Your task to perform on an android device: Add "logitech g pro" to the cart on newegg.com Image 0: 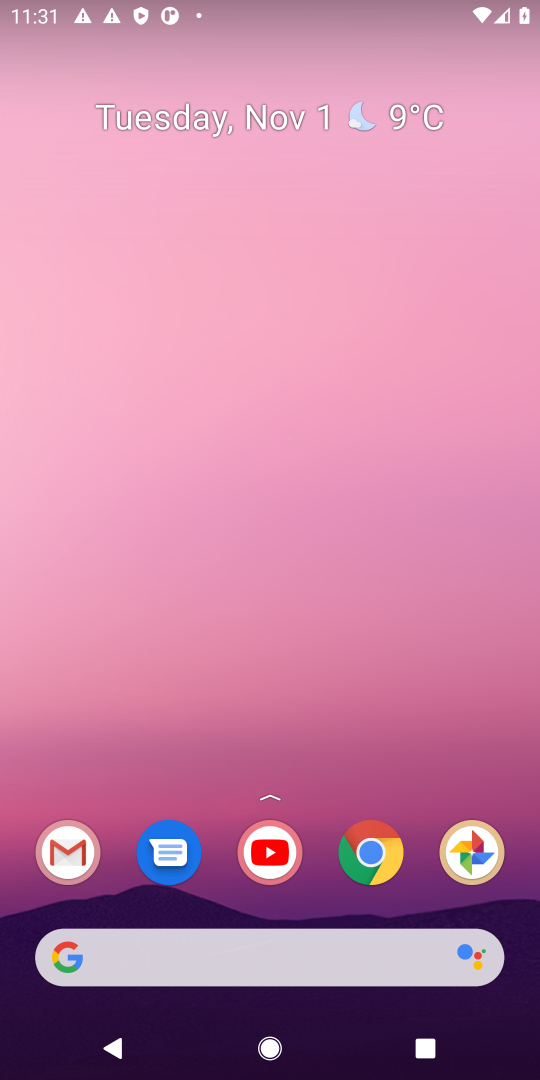
Step 0: drag from (255, 961) to (280, 307)
Your task to perform on an android device: Add "logitech g pro" to the cart on newegg.com Image 1: 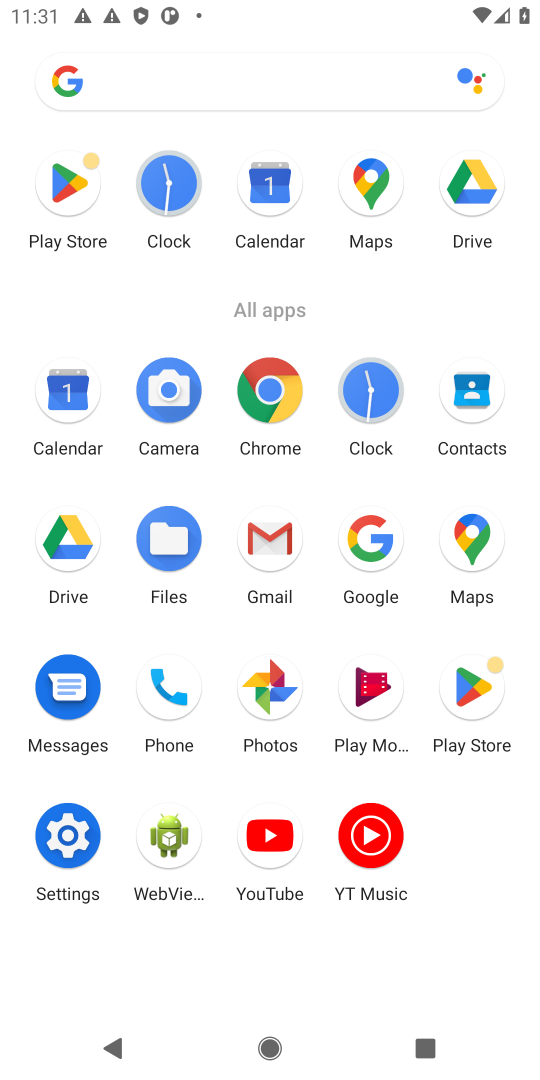
Step 1: click (375, 541)
Your task to perform on an android device: Add "logitech g pro" to the cart on newegg.com Image 2: 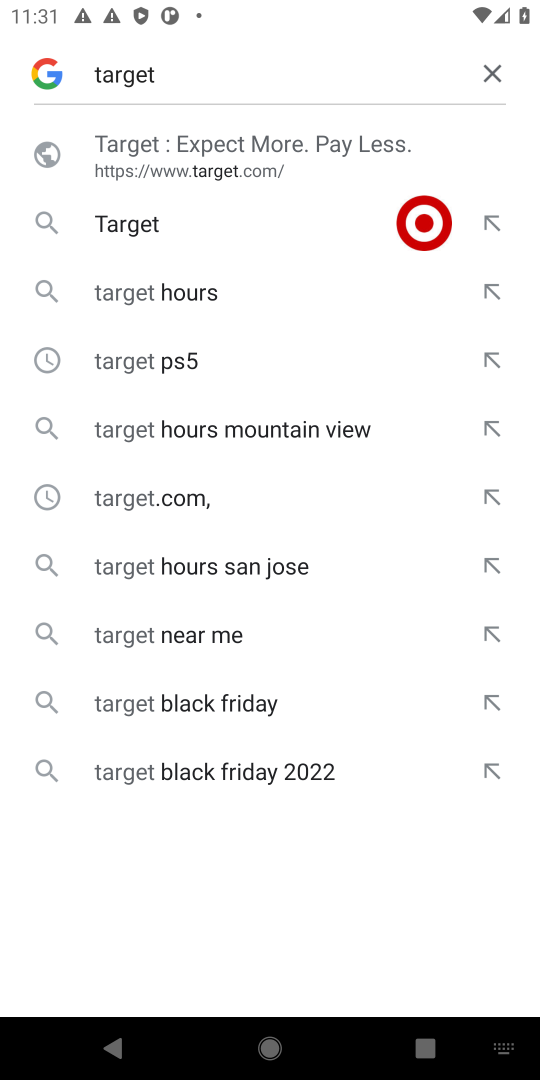
Step 2: click (479, 69)
Your task to perform on an android device: Add "logitech g pro" to the cart on newegg.com Image 3: 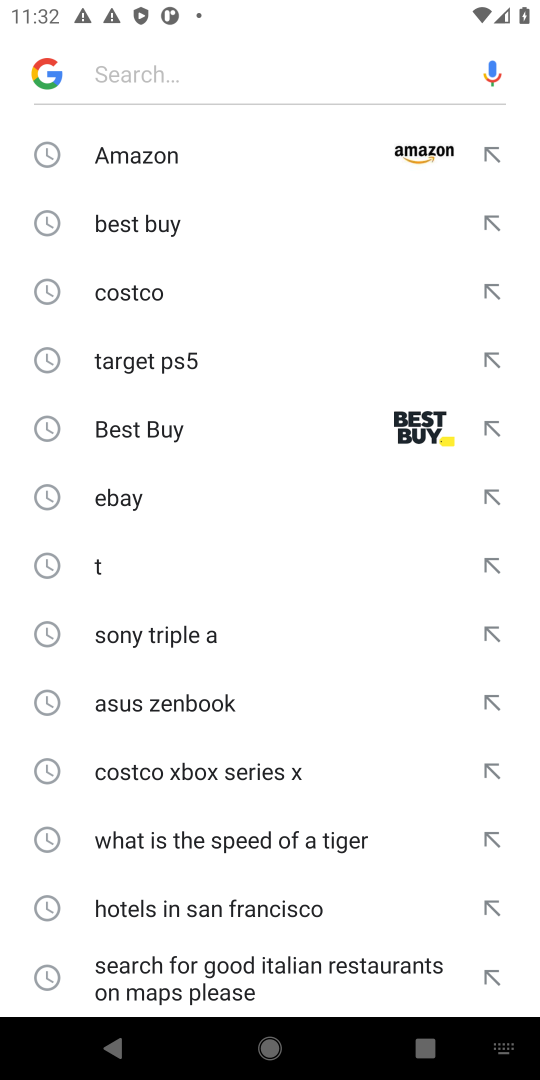
Step 3: type "newegg.com"
Your task to perform on an android device: Add "logitech g pro" to the cart on newegg.com Image 4: 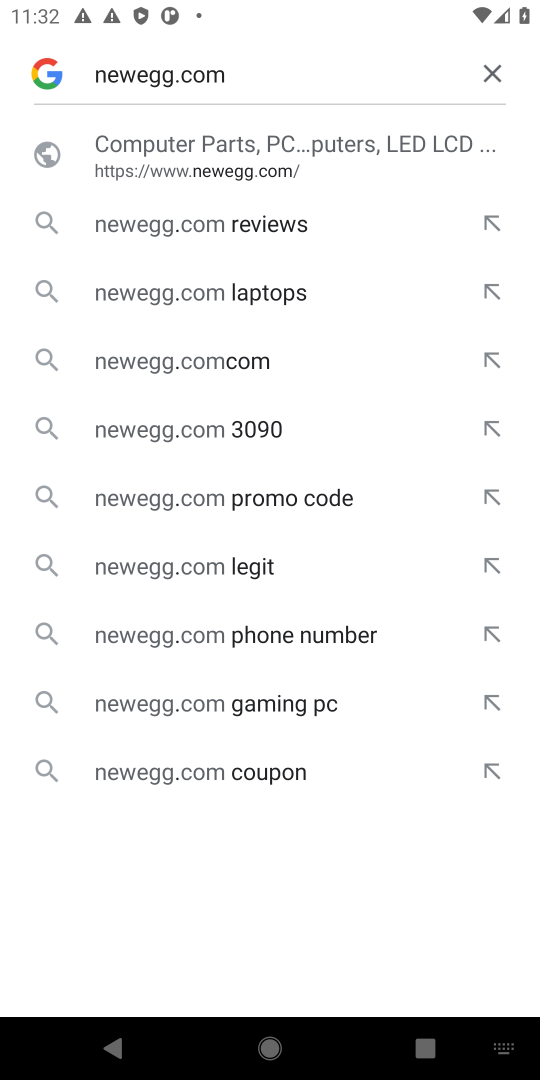
Step 4: click (277, 160)
Your task to perform on an android device: Add "logitech g pro" to the cart on newegg.com Image 5: 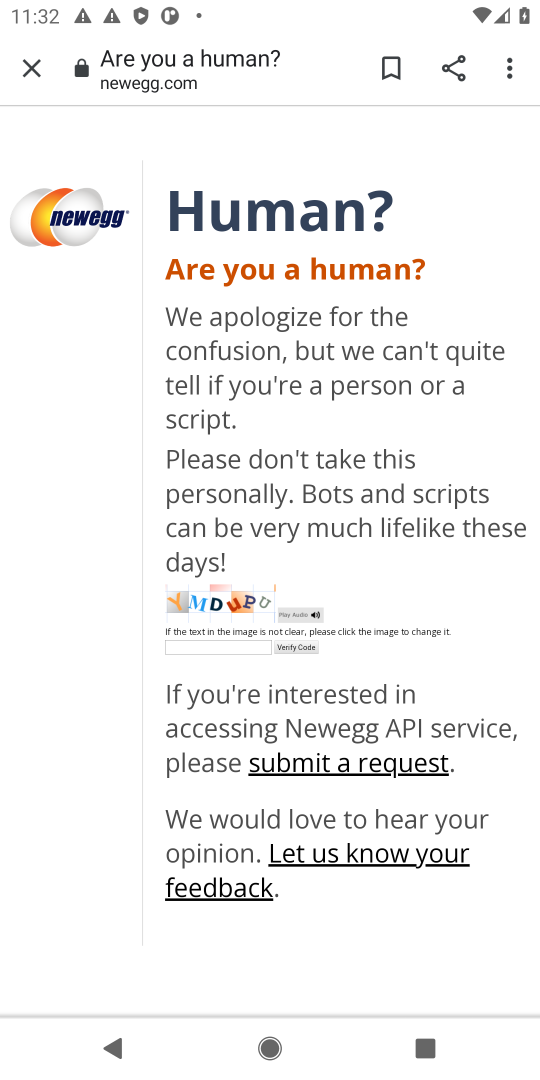
Step 5: task complete